Your task to perform on an android device: check storage Image 0: 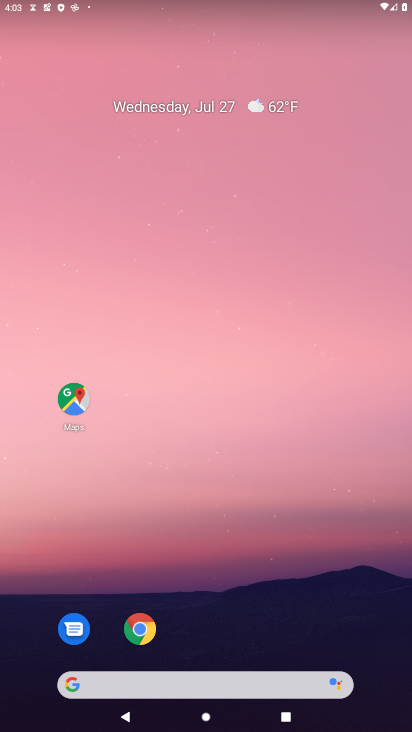
Step 0: drag from (187, 688) to (194, 83)
Your task to perform on an android device: check storage Image 1: 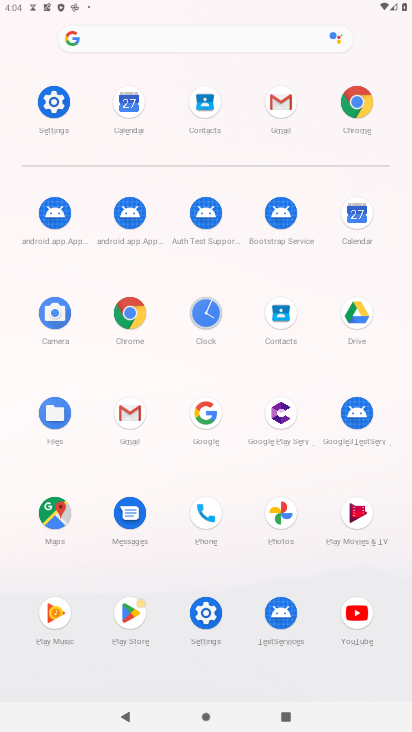
Step 1: click (55, 102)
Your task to perform on an android device: check storage Image 2: 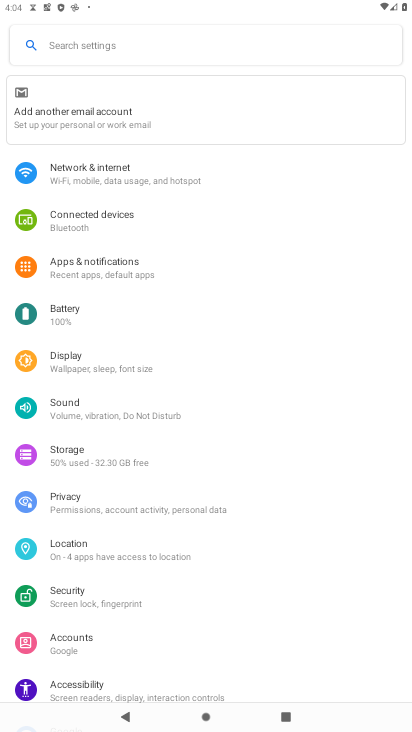
Step 2: click (89, 457)
Your task to perform on an android device: check storage Image 3: 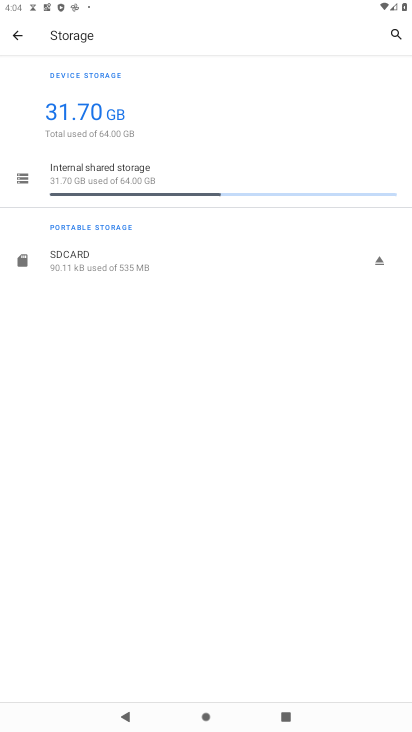
Step 3: task complete